Your task to perform on an android device: Go to Android settings Image 0: 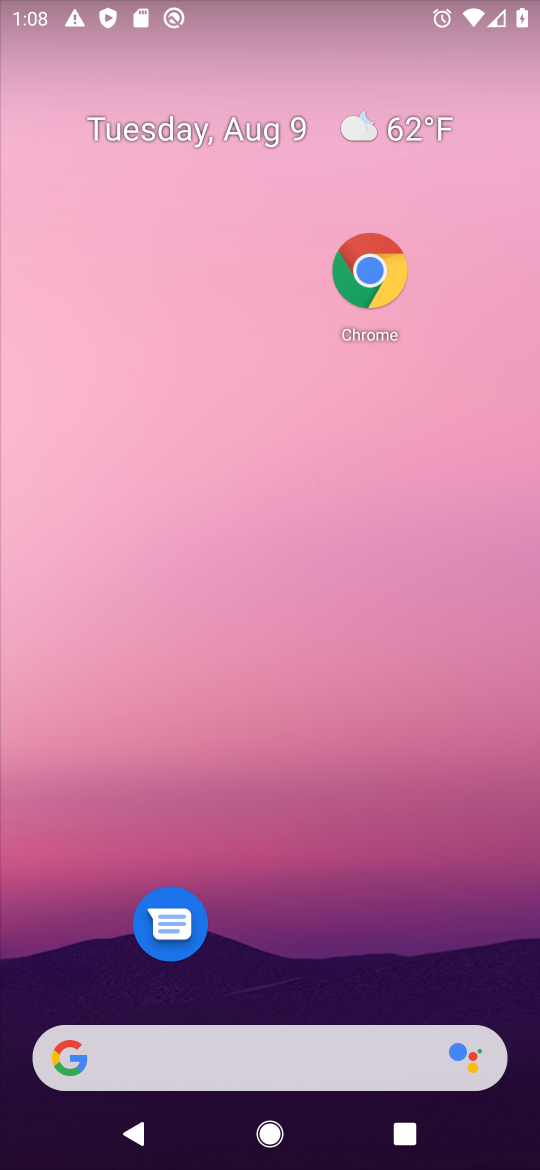
Step 0: task complete